Your task to perform on an android device: open app "Instagram" Image 0: 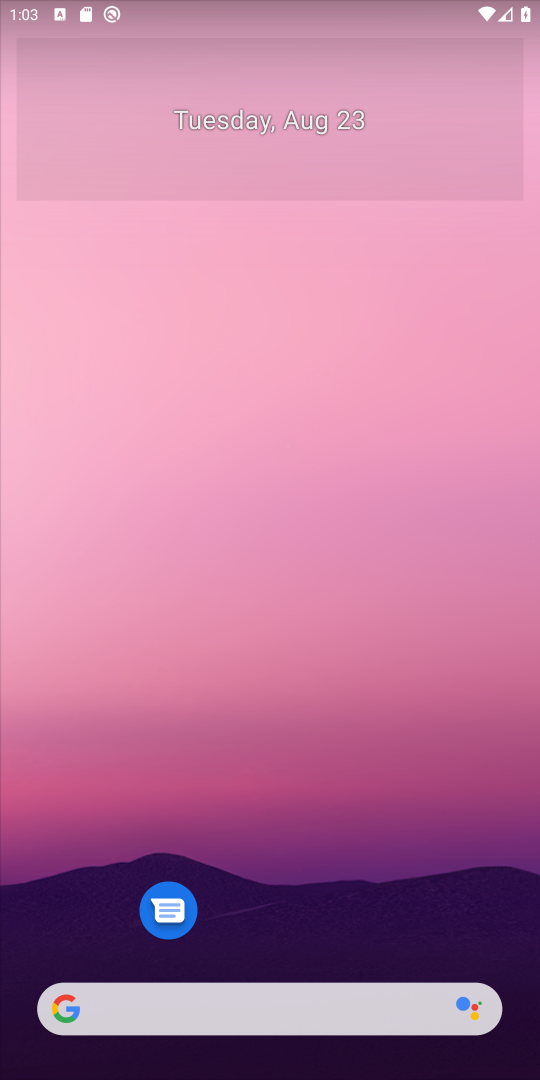
Step 0: drag from (210, 954) to (364, 42)
Your task to perform on an android device: open app "Instagram" Image 1: 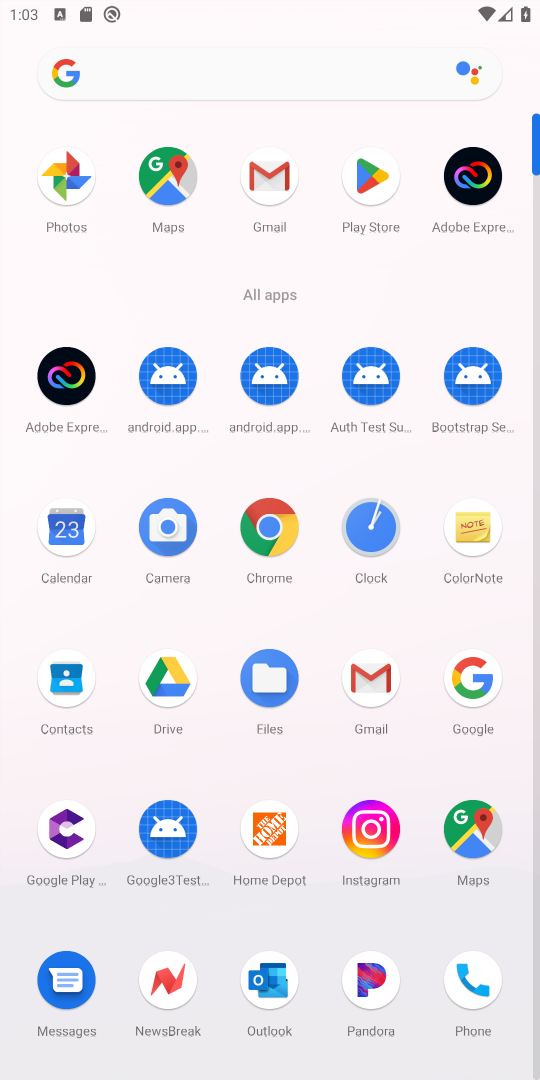
Step 1: click (366, 188)
Your task to perform on an android device: open app "Instagram" Image 2: 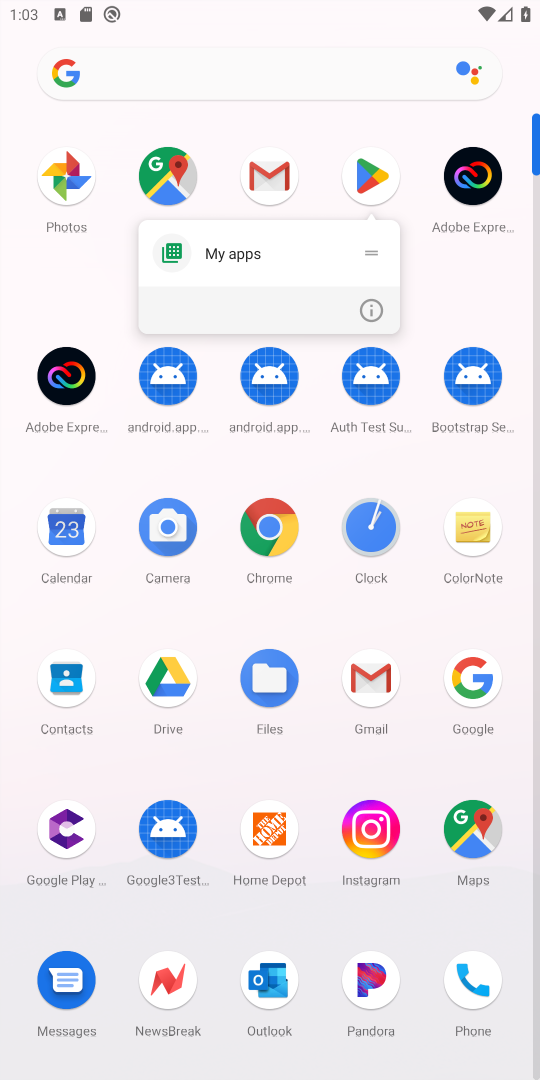
Step 2: click (366, 188)
Your task to perform on an android device: open app "Instagram" Image 3: 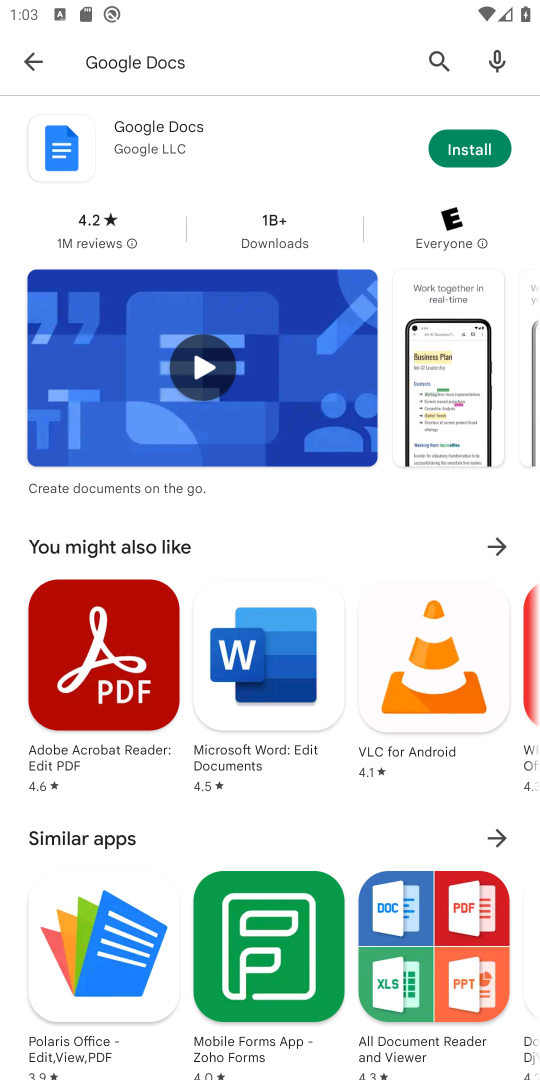
Step 3: press back button
Your task to perform on an android device: open app "Instagram" Image 4: 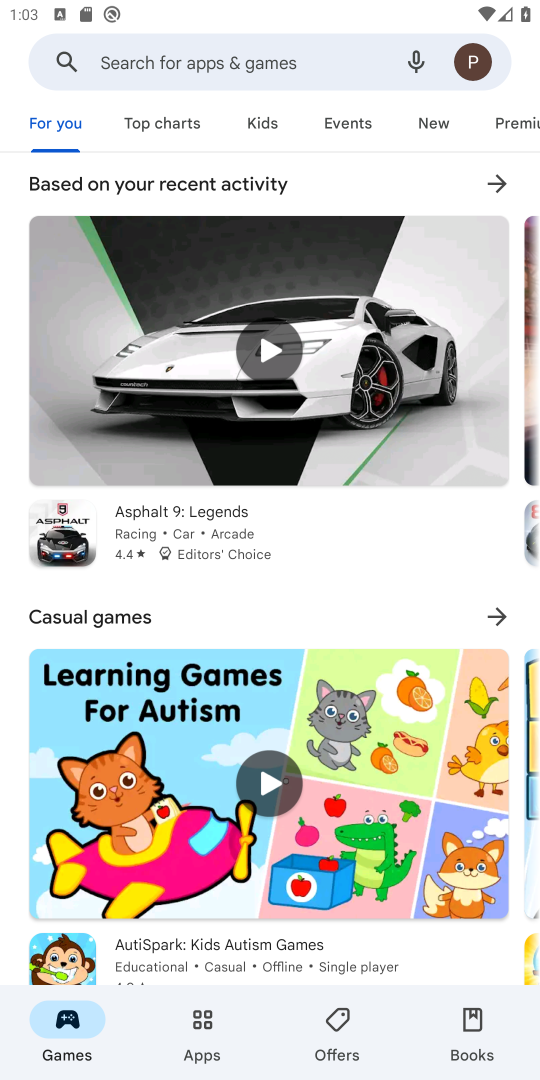
Step 4: click (224, 63)
Your task to perform on an android device: open app "Instagram" Image 5: 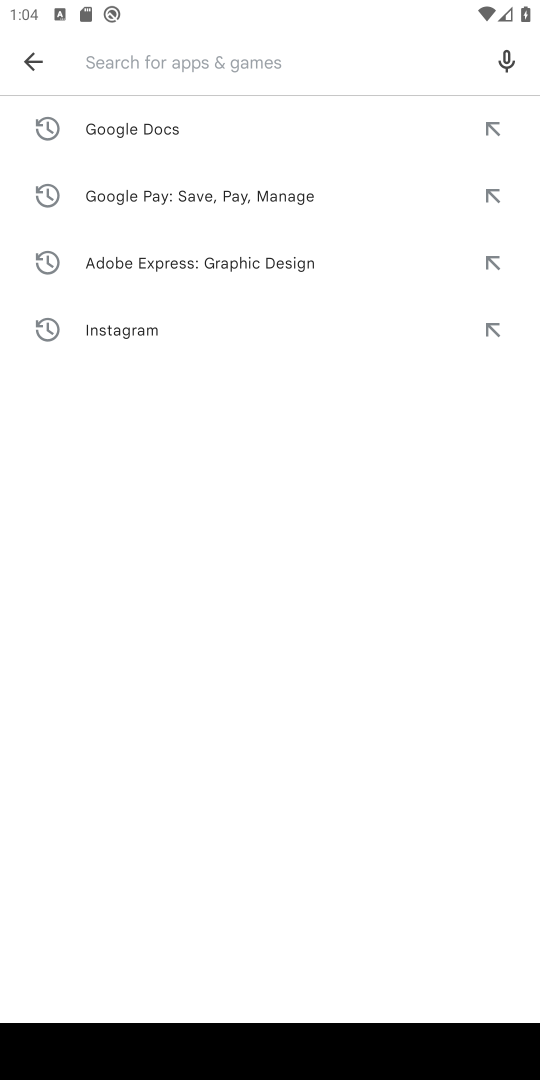
Step 5: type "Instagram"
Your task to perform on an android device: open app "Instagram" Image 6: 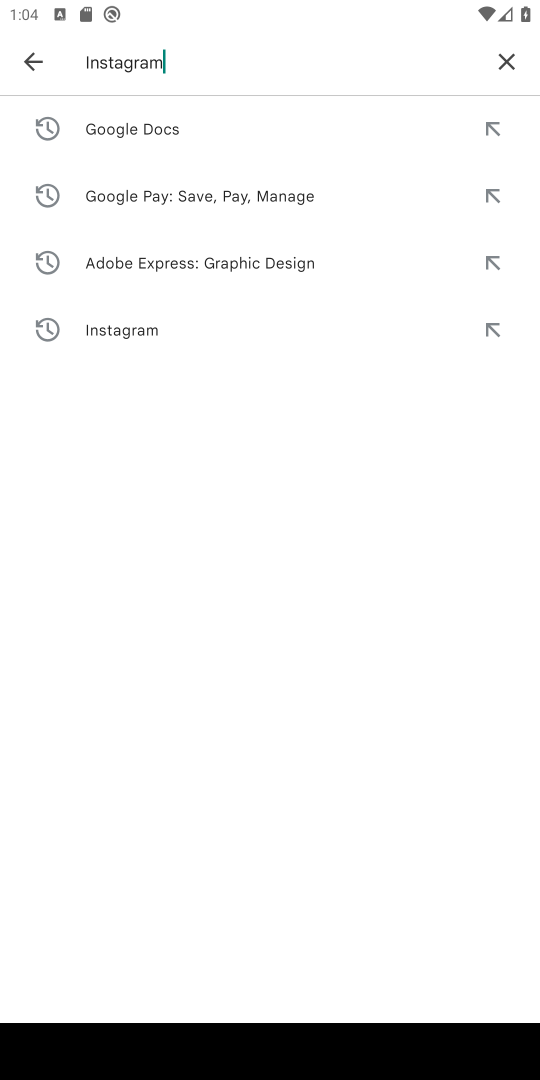
Step 6: press enter
Your task to perform on an android device: open app "Instagram" Image 7: 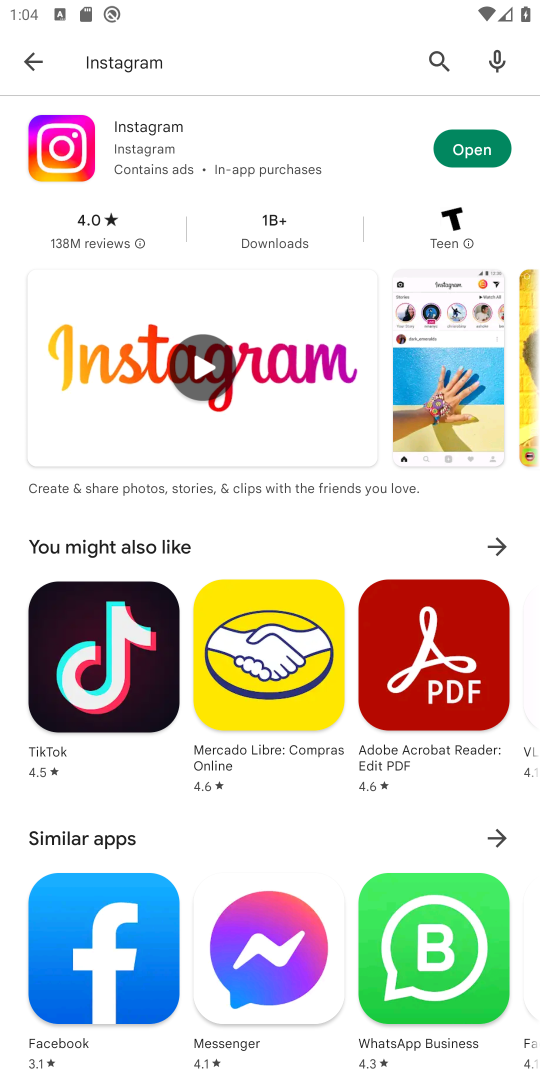
Step 7: click (468, 149)
Your task to perform on an android device: open app "Instagram" Image 8: 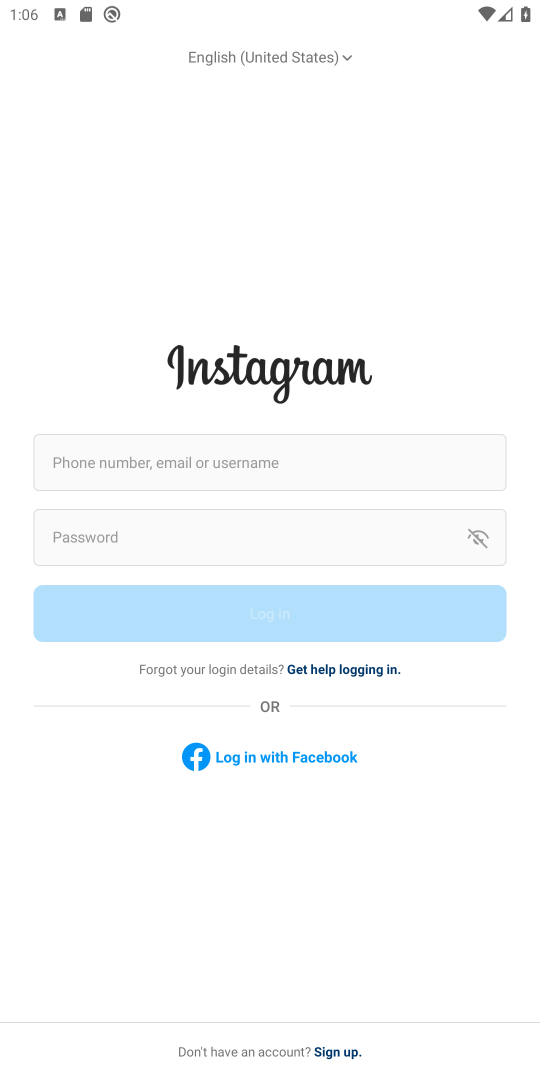
Step 8: task complete